Your task to perform on an android device: Open wifi settings Image 0: 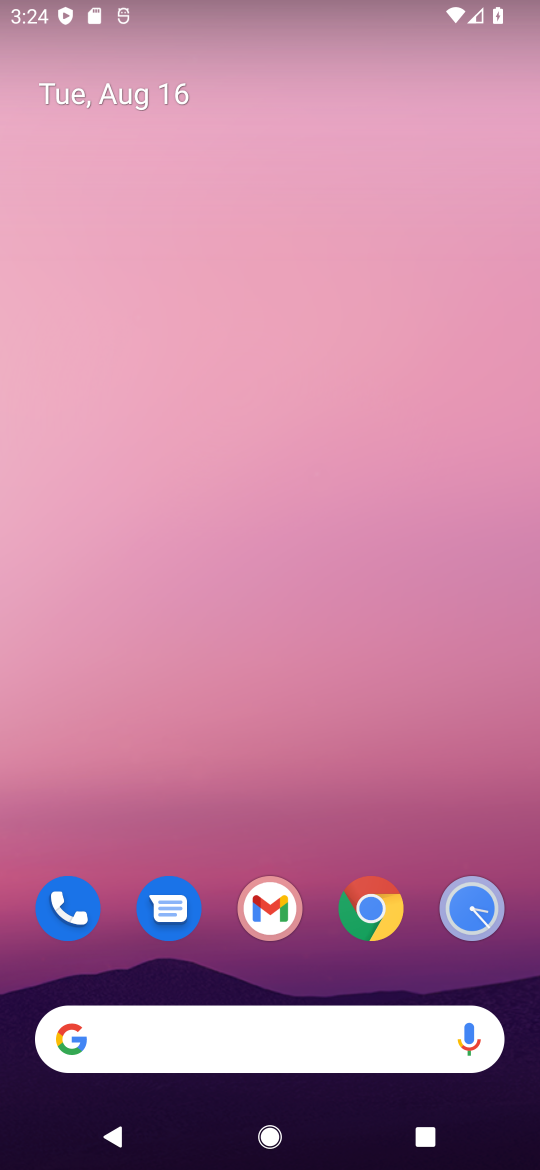
Step 0: press home button
Your task to perform on an android device: Open wifi settings Image 1: 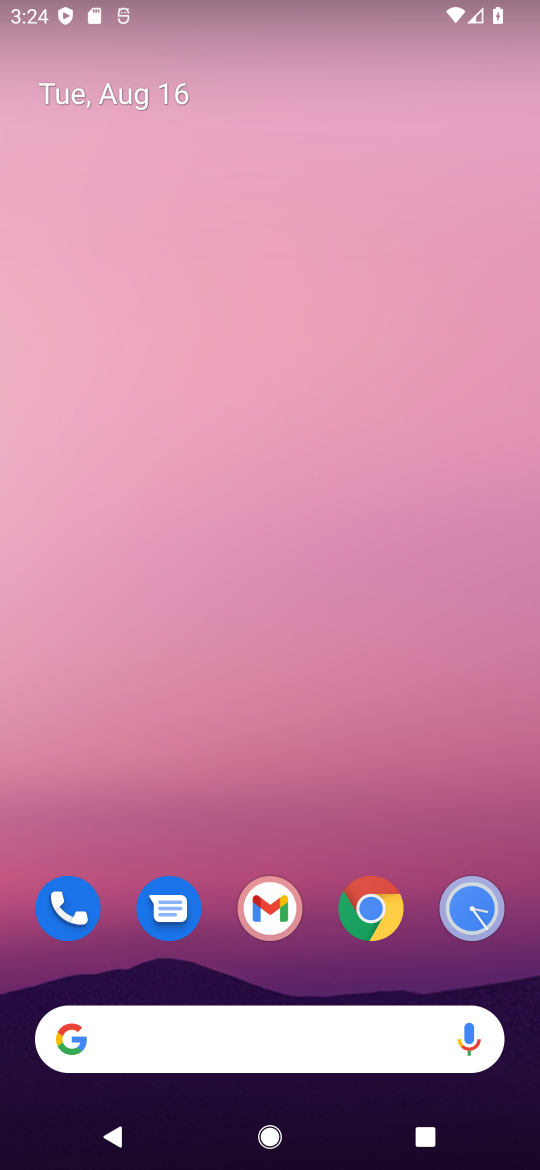
Step 1: drag from (320, 854) to (367, 12)
Your task to perform on an android device: Open wifi settings Image 2: 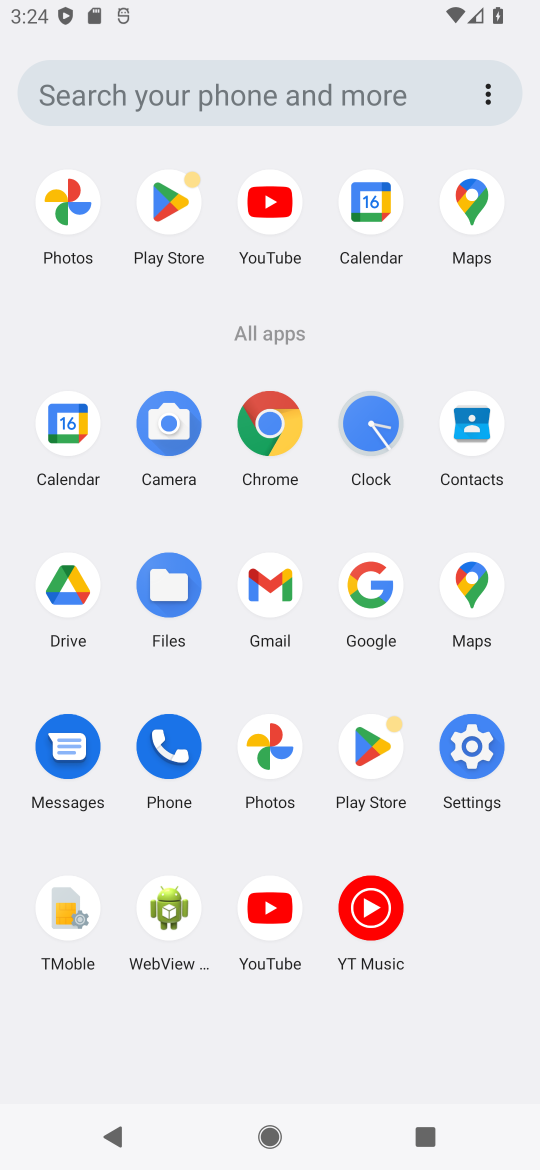
Step 2: click (471, 736)
Your task to perform on an android device: Open wifi settings Image 3: 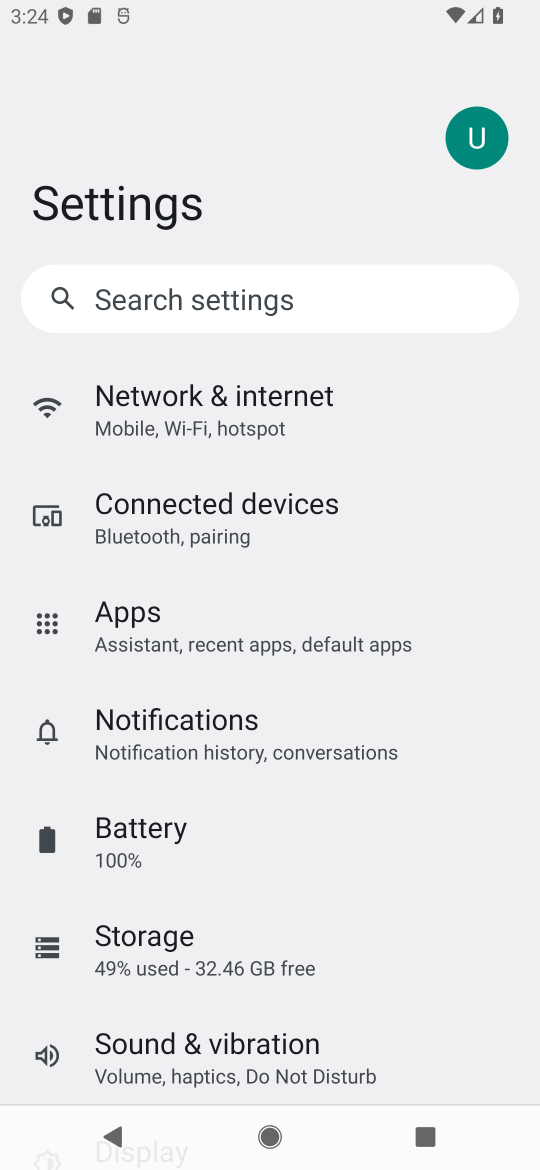
Step 3: click (293, 429)
Your task to perform on an android device: Open wifi settings Image 4: 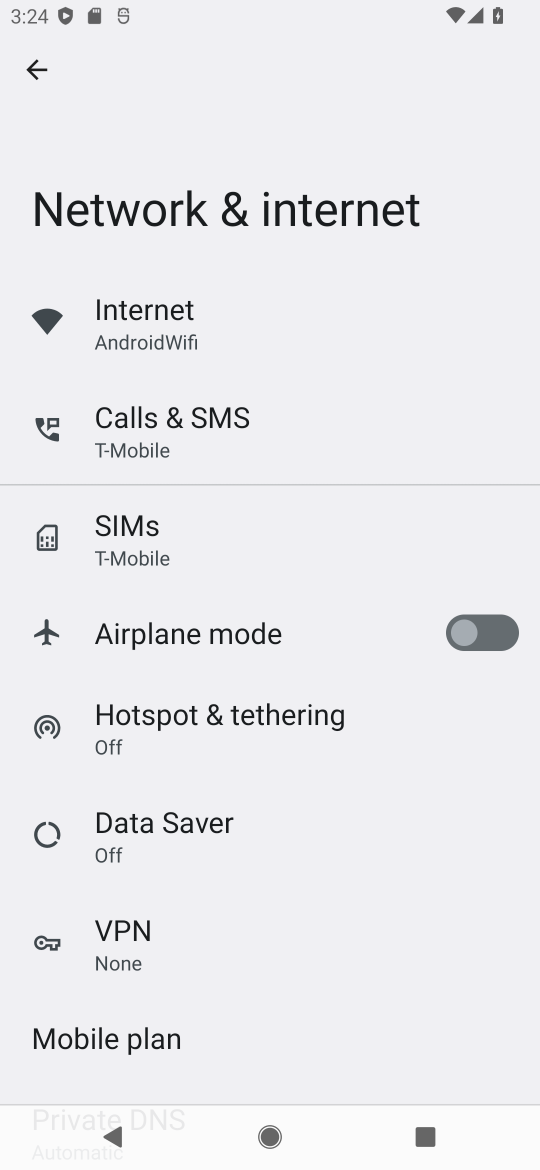
Step 4: click (225, 322)
Your task to perform on an android device: Open wifi settings Image 5: 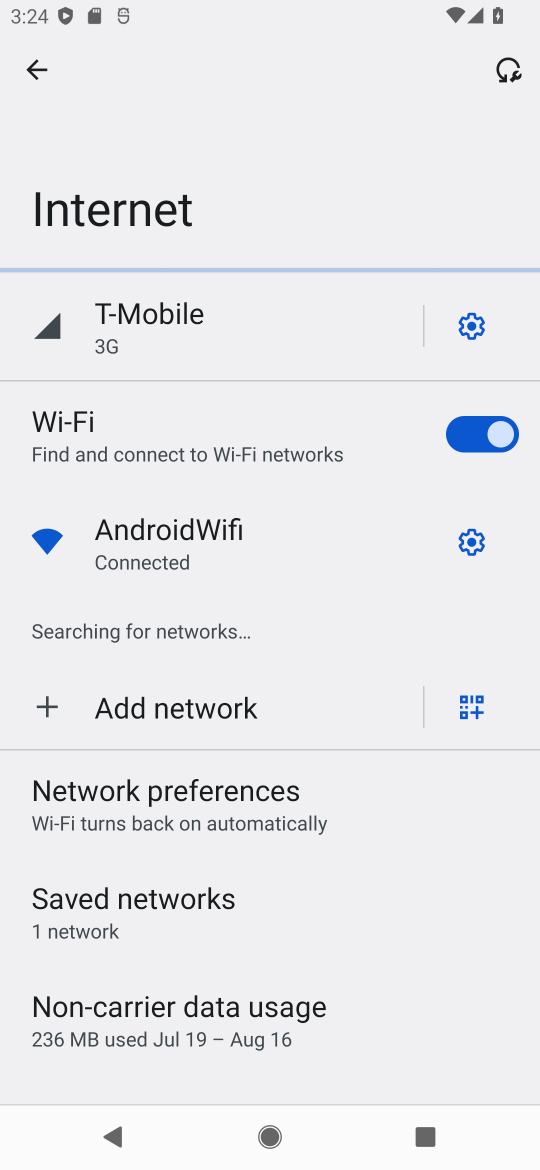
Step 5: task complete